Your task to perform on an android device: Do I have any events today? Image 0: 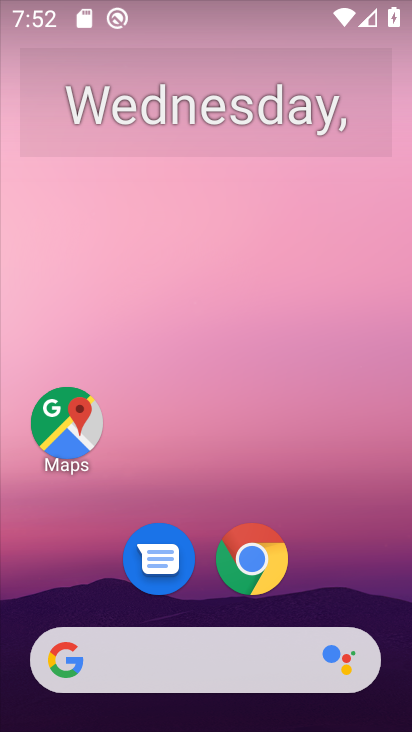
Step 0: press home button
Your task to perform on an android device: Do I have any events today? Image 1: 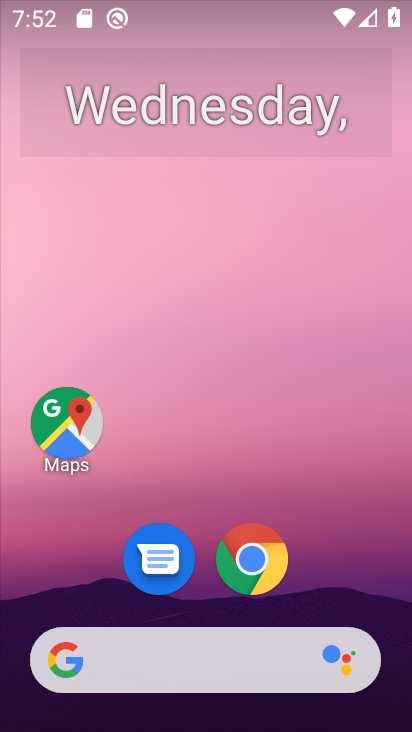
Step 1: drag from (366, 531) to (382, 150)
Your task to perform on an android device: Do I have any events today? Image 2: 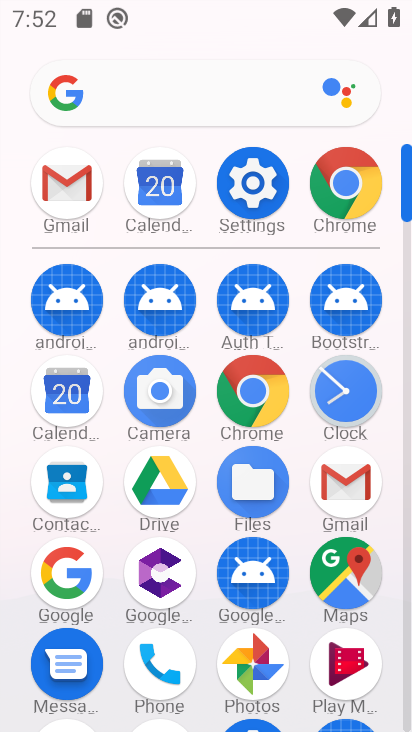
Step 2: click (66, 394)
Your task to perform on an android device: Do I have any events today? Image 3: 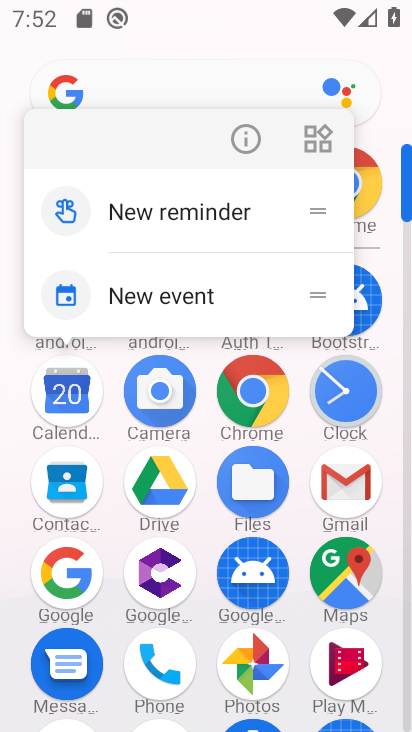
Step 3: click (75, 377)
Your task to perform on an android device: Do I have any events today? Image 4: 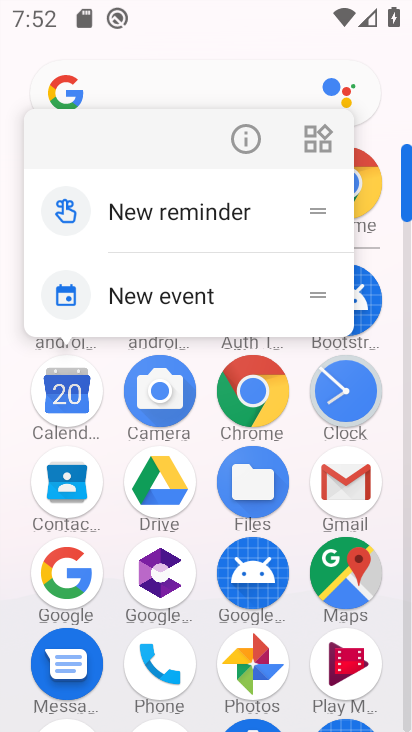
Step 4: click (80, 413)
Your task to perform on an android device: Do I have any events today? Image 5: 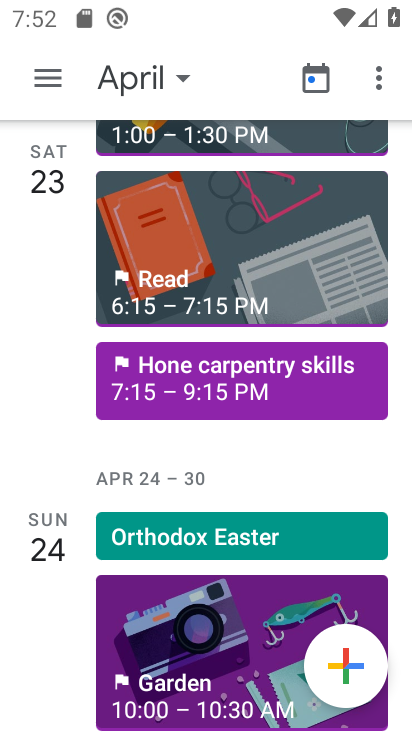
Step 5: click (152, 80)
Your task to perform on an android device: Do I have any events today? Image 6: 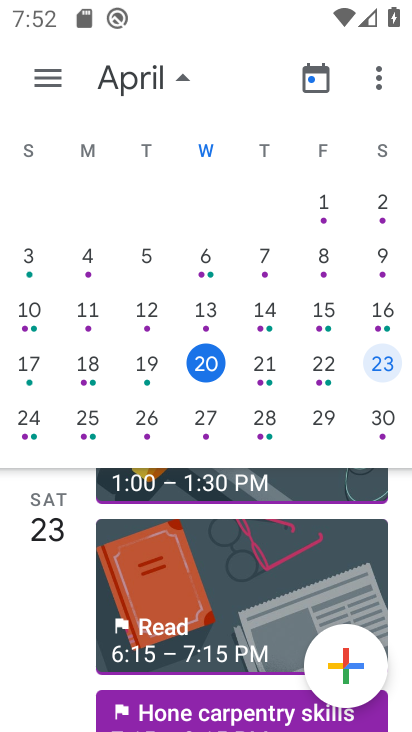
Step 6: click (200, 366)
Your task to perform on an android device: Do I have any events today? Image 7: 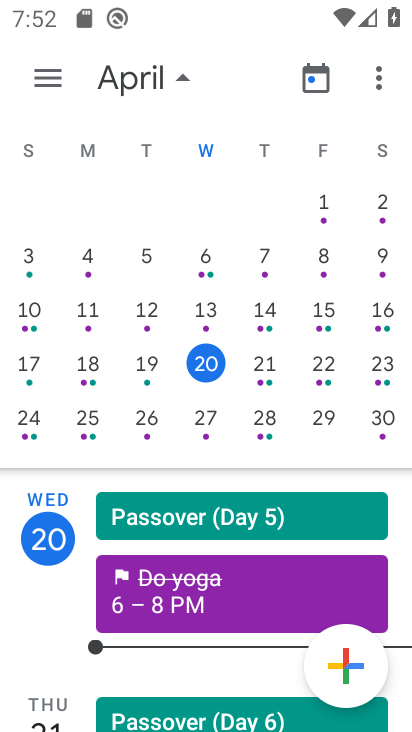
Step 7: task complete